Your task to perform on an android device: What's the weather? Image 0: 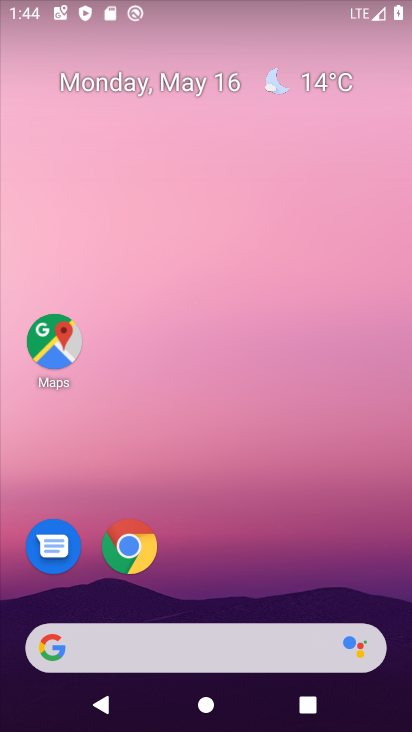
Step 0: drag from (202, 288) to (233, 94)
Your task to perform on an android device: What's the weather? Image 1: 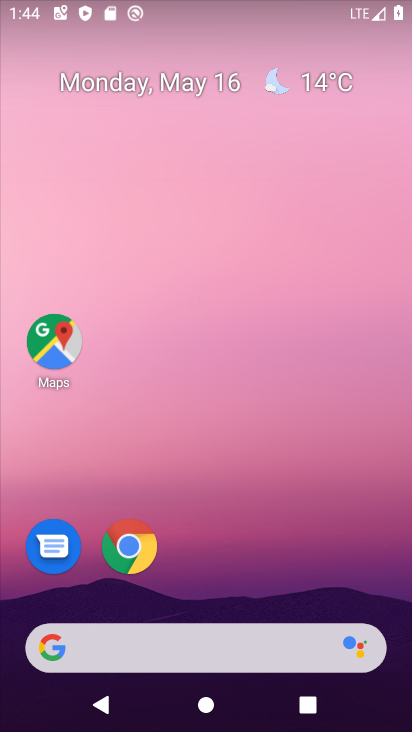
Step 1: drag from (228, 691) to (191, 285)
Your task to perform on an android device: What's the weather? Image 2: 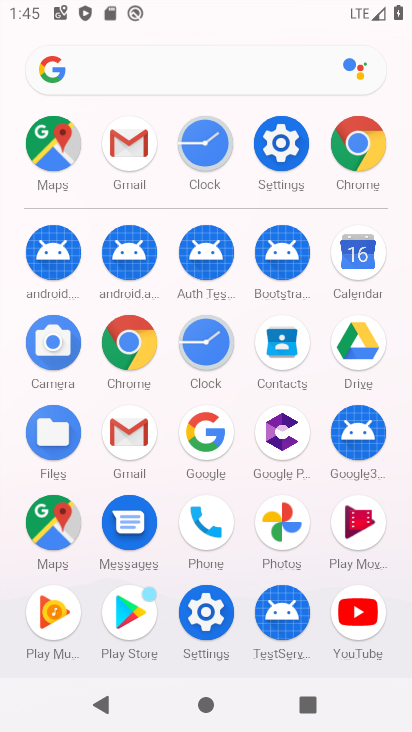
Step 2: click (138, 86)
Your task to perform on an android device: What's the weather? Image 3: 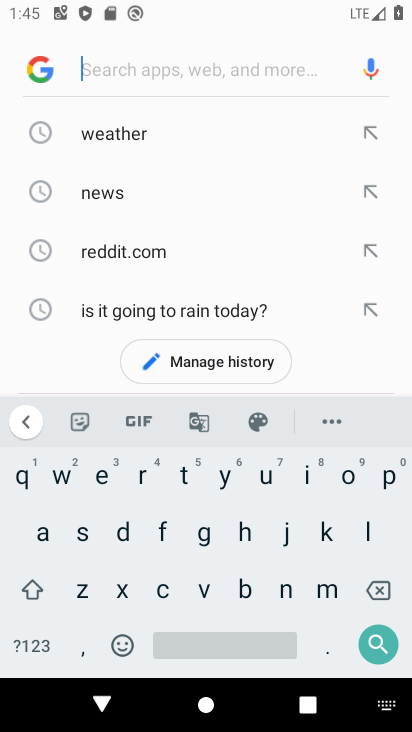
Step 3: click (120, 140)
Your task to perform on an android device: What's the weather? Image 4: 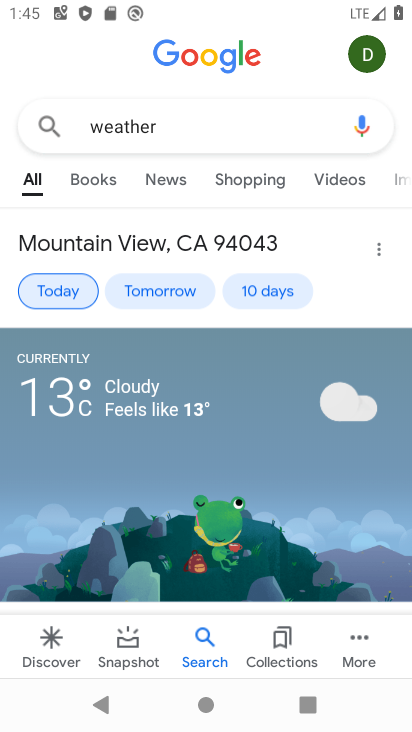
Step 4: task complete